Your task to perform on an android device: check out phone information Image 0: 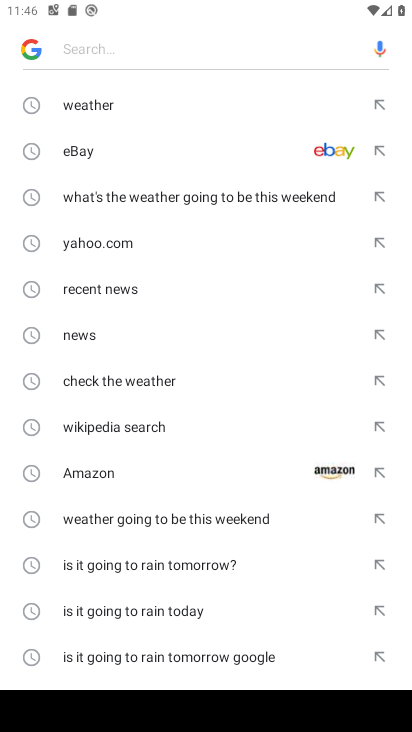
Step 0: press home button
Your task to perform on an android device: check out phone information Image 1: 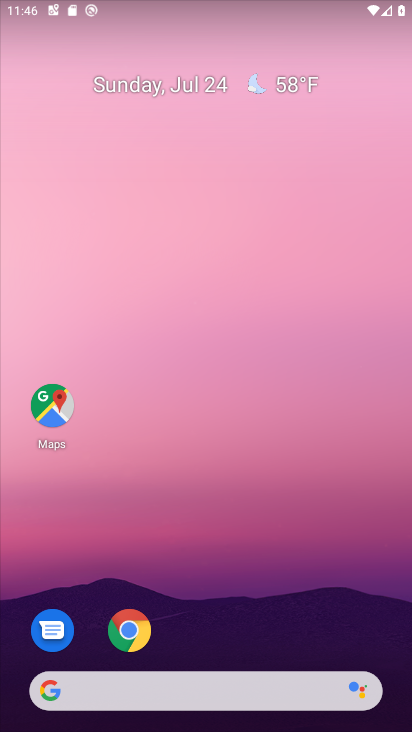
Step 1: click (234, 27)
Your task to perform on an android device: check out phone information Image 2: 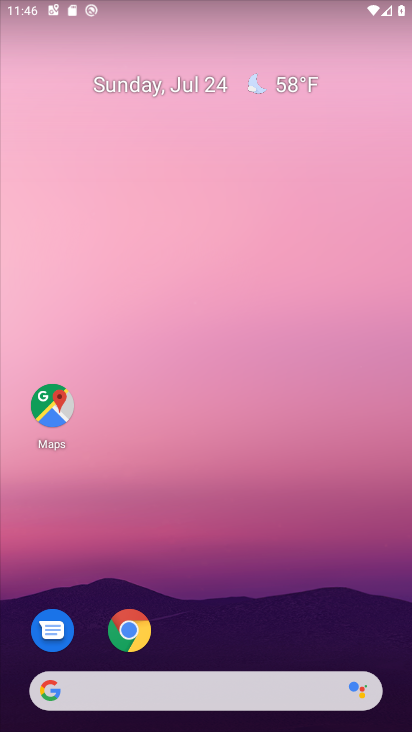
Step 2: drag from (170, 550) to (210, 23)
Your task to perform on an android device: check out phone information Image 3: 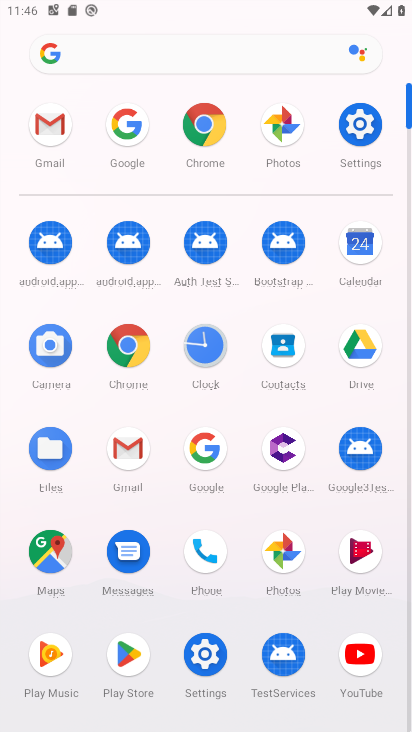
Step 3: click (361, 129)
Your task to perform on an android device: check out phone information Image 4: 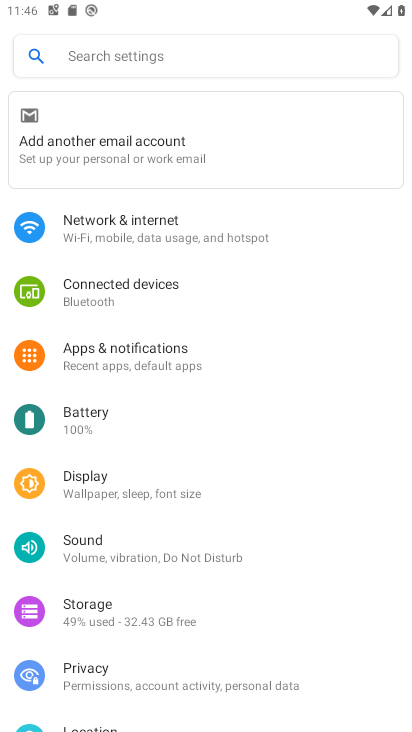
Step 4: drag from (168, 467) to (102, 62)
Your task to perform on an android device: check out phone information Image 5: 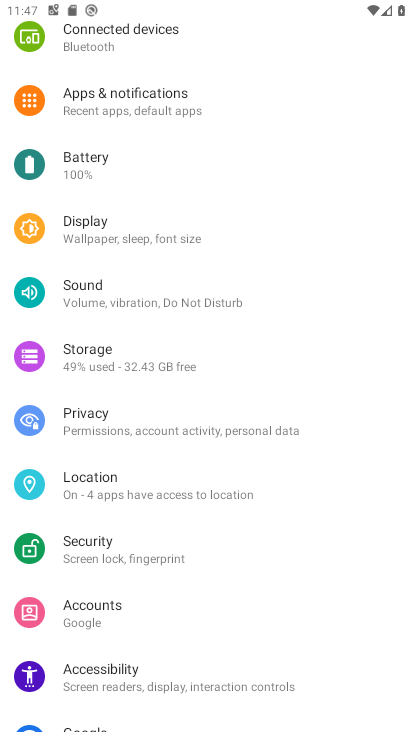
Step 5: drag from (147, 613) to (246, 304)
Your task to perform on an android device: check out phone information Image 6: 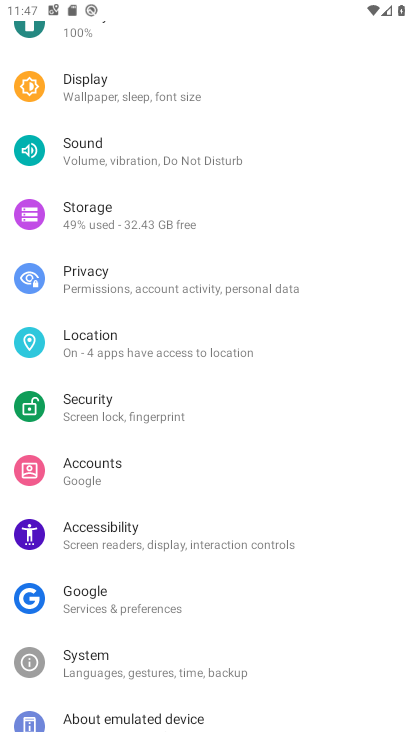
Step 6: click (210, 426)
Your task to perform on an android device: check out phone information Image 7: 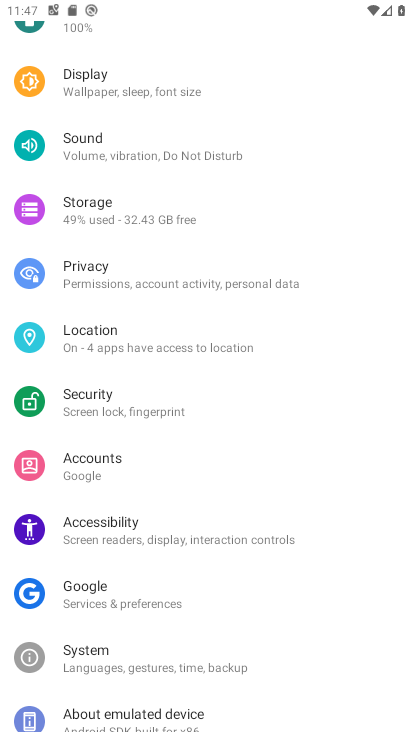
Step 7: click (73, 703)
Your task to perform on an android device: check out phone information Image 8: 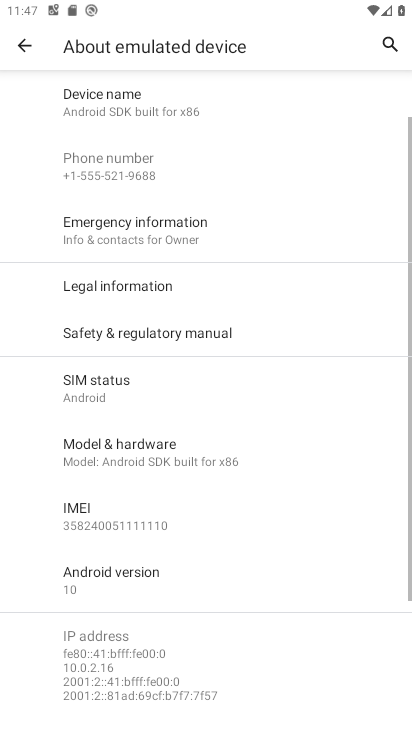
Step 8: task complete